Your task to perform on an android device: choose inbox layout in the gmail app Image 0: 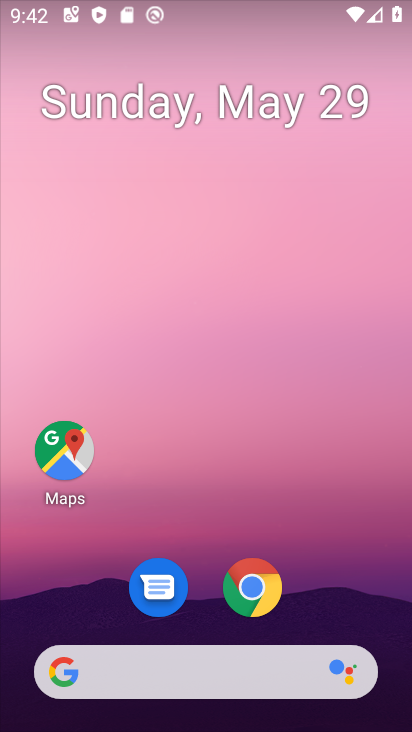
Step 0: drag from (211, 623) to (220, 117)
Your task to perform on an android device: choose inbox layout in the gmail app Image 1: 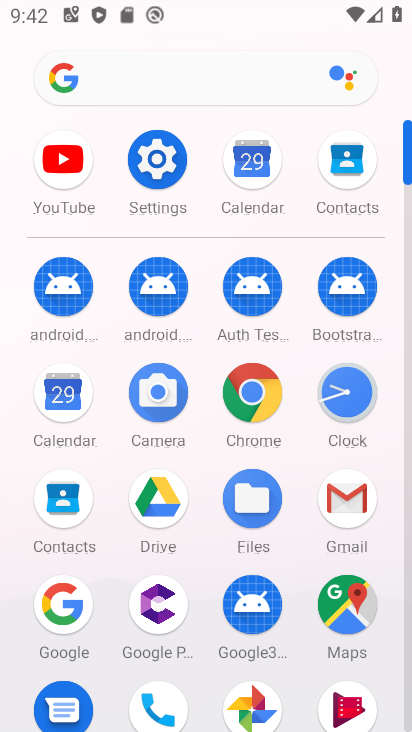
Step 1: click (354, 505)
Your task to perform on an android device: choose inbox layout in the gmail app Image 2: 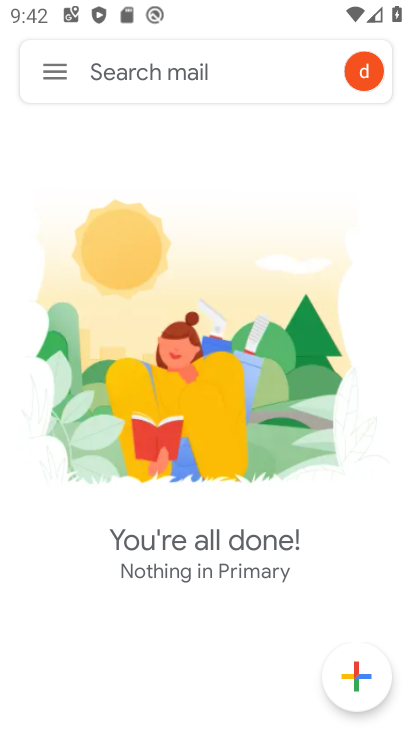
Step 2: click (37, 73)
Your task to perform on an android device: choose inbox layout in the gmail app Image 3: 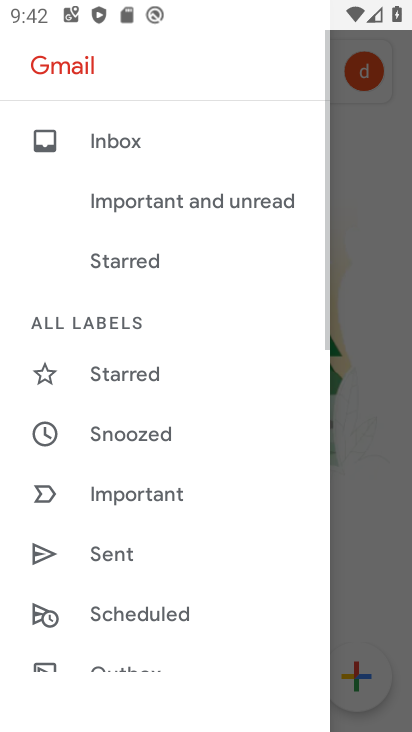
Step 3: drag from (173, 626) to (213, 45)
Your task to perform on an android device: choose inbox layout in the gmail app Image 4: 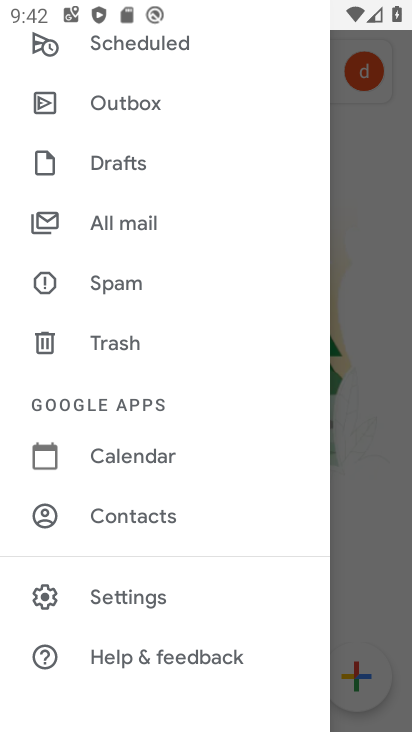
Step 4: click (148, 603)
Your task to perform on an android device: choose inbox layout in the gmail app Image 5: 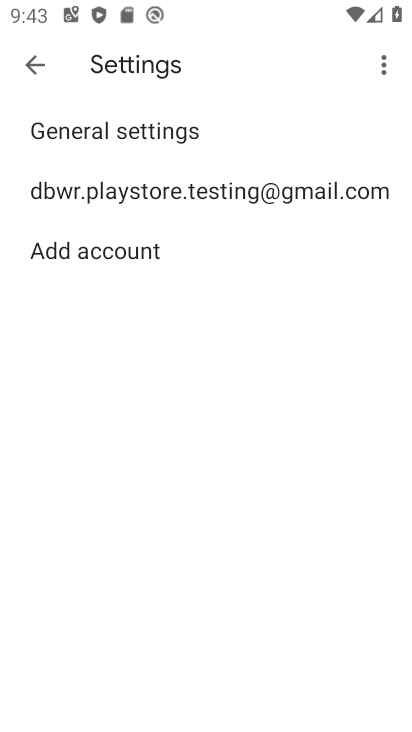
Step 5: click (174, 197)
Your task to perform on an android device: choose inbox layout in the gmail app Image 6: 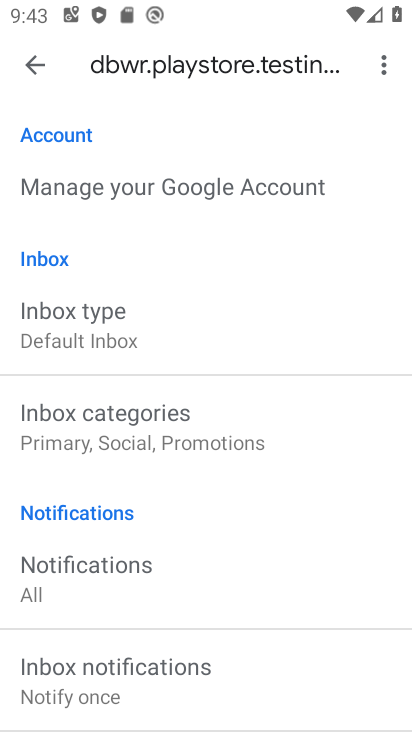
Step 6: click (145, 337)
Your task to perform on an android device: choose inbox layout in the gmail app Image 7: 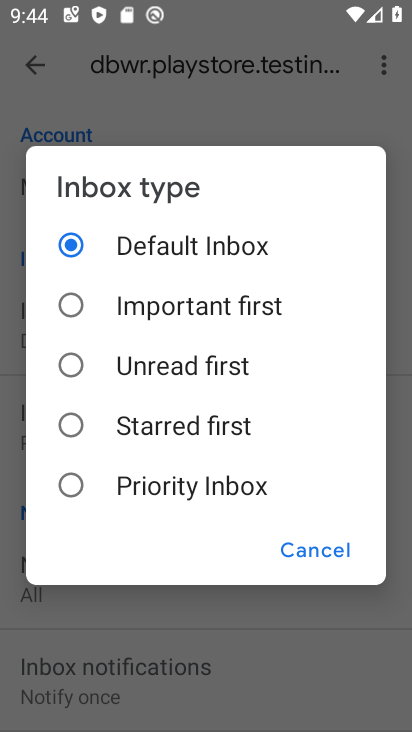
Step 7: click (78, 487)
Your task to perform on an android device: choose inbox layout in the gmail app Image 8: 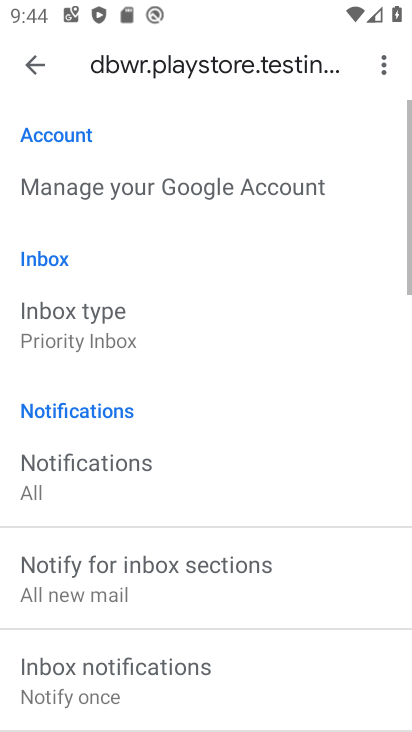
Step 8: task complete